Your task to perform on an android device: Add alienware aurora to the cart on newegg.com, then select checkout. Image 0: 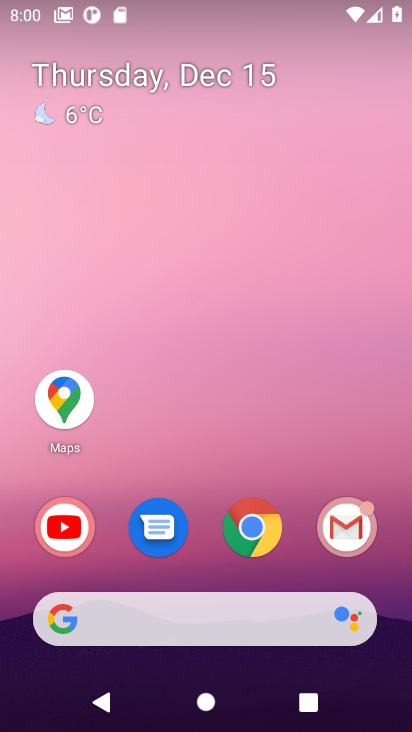
Step 0: click (232, 525)
Your task to perform on an android device: Add alienware aurora to the cart on newegg.com, then select checkout. Image 1: 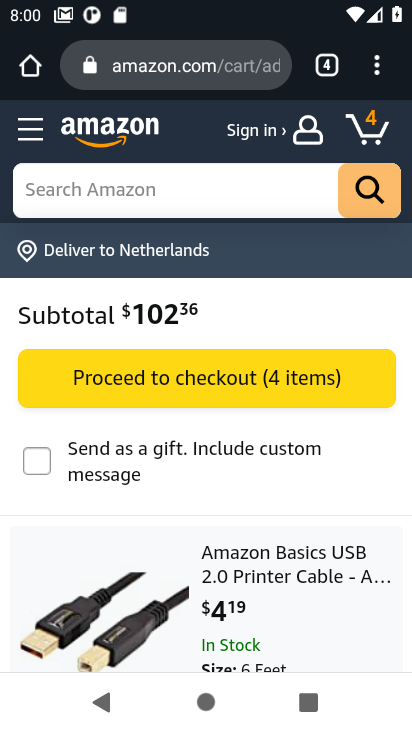
Step 1: click (171, 193)
Your task to perform on an android device: Add alienware aurora to the cart on newegg.com, then select checkout. Image 2: 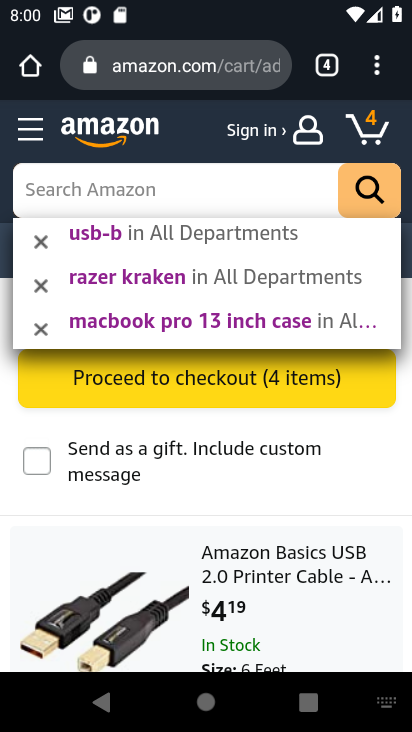
Step 2: click (207, 66)
Your task to perform on an android device: Add alienware aurora to the cart on newegg.com, then select checkout. Image 3: 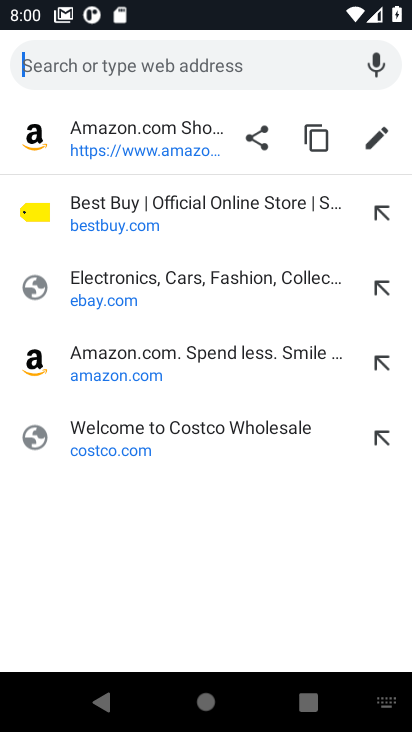
Step 3: type "newegg"
Your task to perform on an android device: Add alienware aurora to the cart on newegg.com, then select checkout. Image 4: 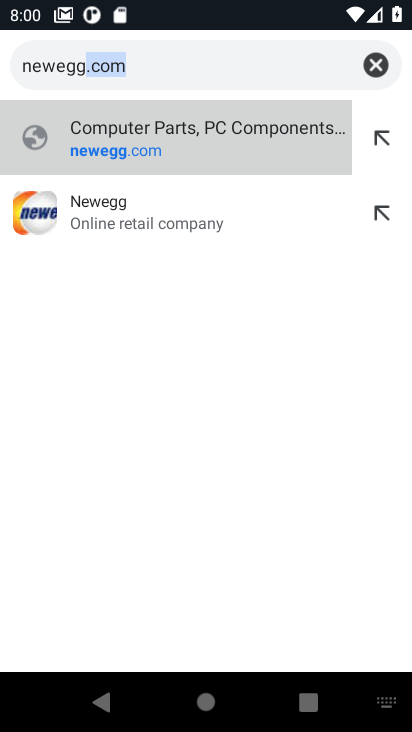
Step 4: click (93, 202)
Your task to perform on an android device: Add alienware aurora to the cart on newegg.com, then select checkout. Image 5: 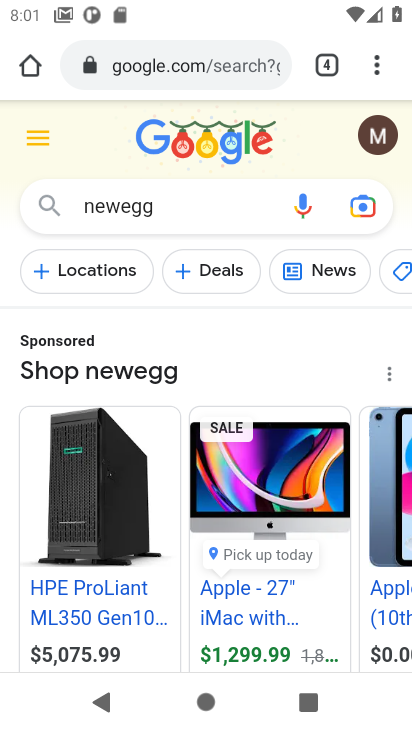
Step 5: click (105, 633)
Your task to perform on an android device: Add alienware aurora to the cart on newegg.com, then select checkout. Image 6: 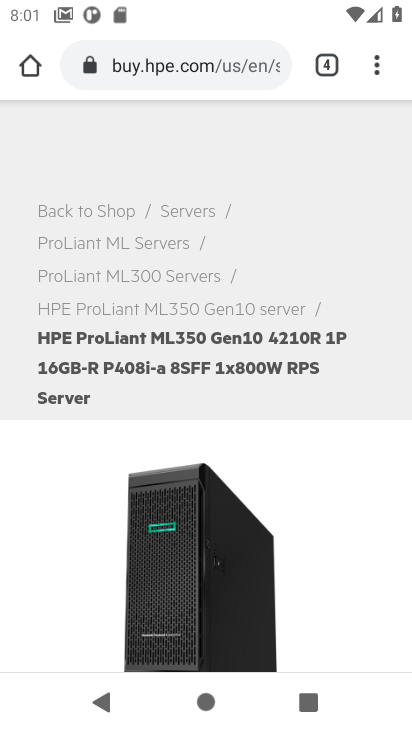
Step 6: task complete